Your task to perform on an android device: Open calendar and show me the fourth week of next month Image 0: 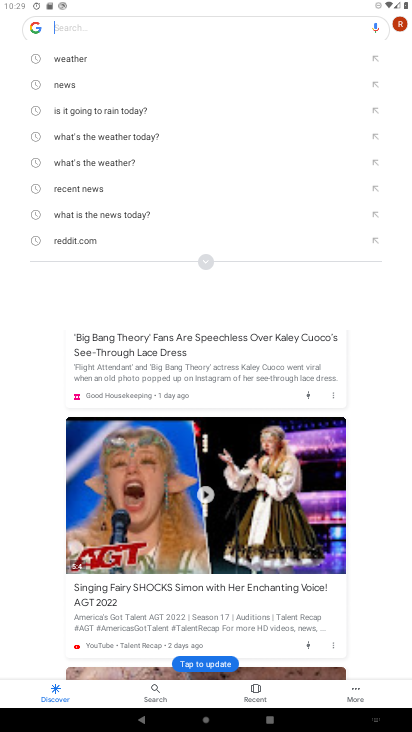
Step 0: press home button
Your task to perform on an android device: Open calendar and show me the fourth week of next month Image 1: 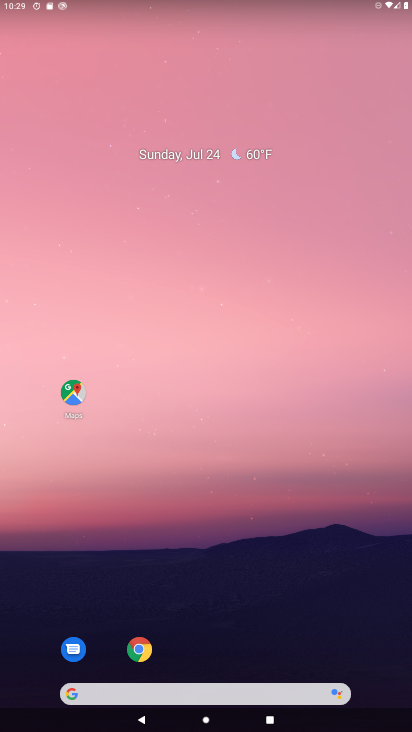
Step 1: drag from (227, 619) to (250, 67)
Your task to perform on an android device: Open calendar and show me the fourth week of next month Image 2: 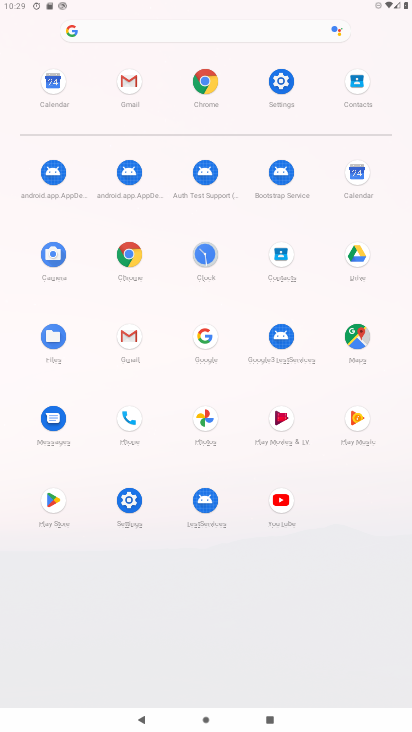
Step 2: click (363, 176)
Your task to perform on an android device: Open calendar and show me the fourth week of next month Image 3: 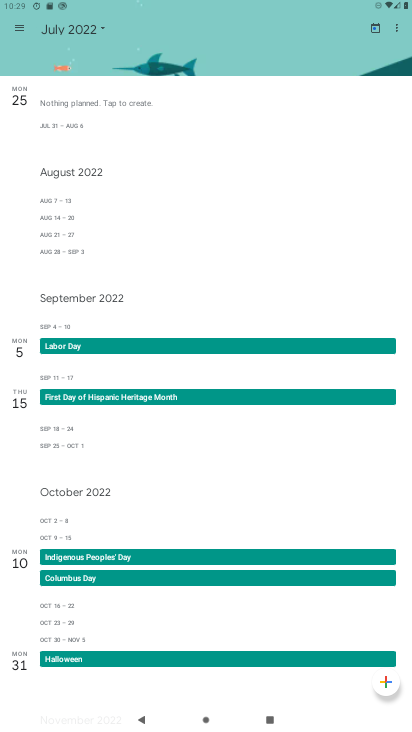
Step 3: click (88, 39)
Your task to perform on an android device: Open calendar and show me the fourth week of next month Image 4: 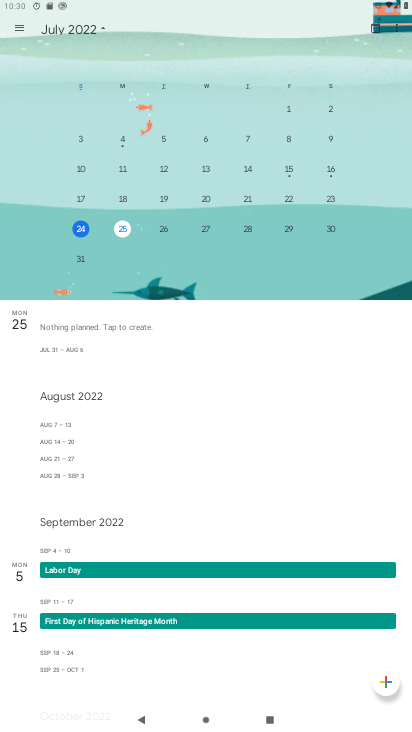
Step 4: drag from (100, 214) to (64, 215)
Your task to perform on an android device: Open calendar and show me the fourth week of next month Image 5: 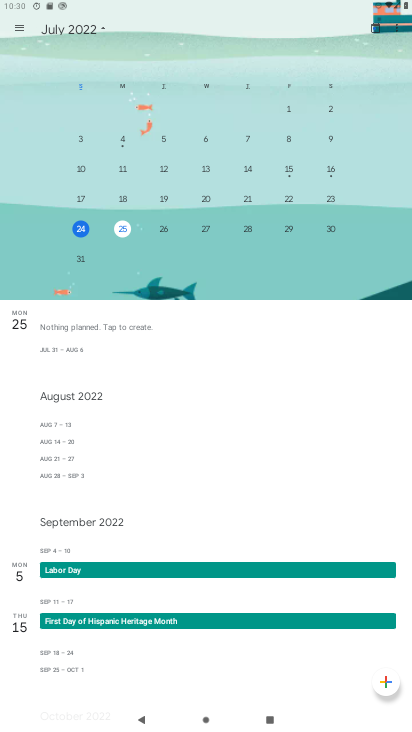
Step 5: drag from (329, 146) to (19, 164)
Your task to perform on an android device: Open calendar and show me the fourth week of next month Image 6: 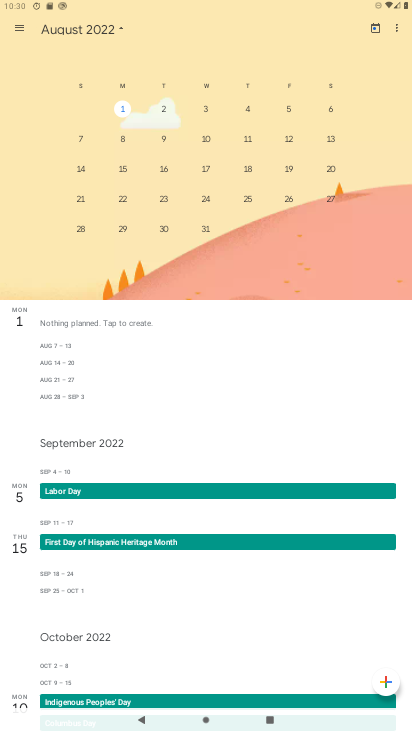
Step 6: click (213, 193)
Your task to perform on an android device: Open calendar and show me the fourth week of next month Image 7: 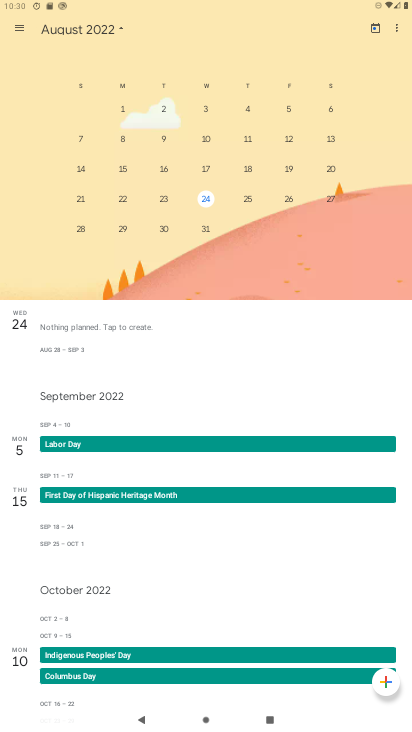
Step 7: click (23, 31)
Your task to perform on an android device: Open calendar and show me the fourth week of next month Image 8: 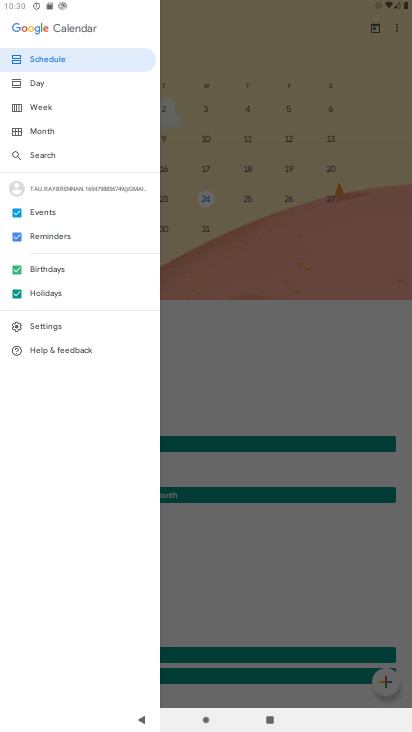
Step 8: click (50, 108)
Your task to perform on an android device: Open calendar and show me the fourth week of next month Image 9: 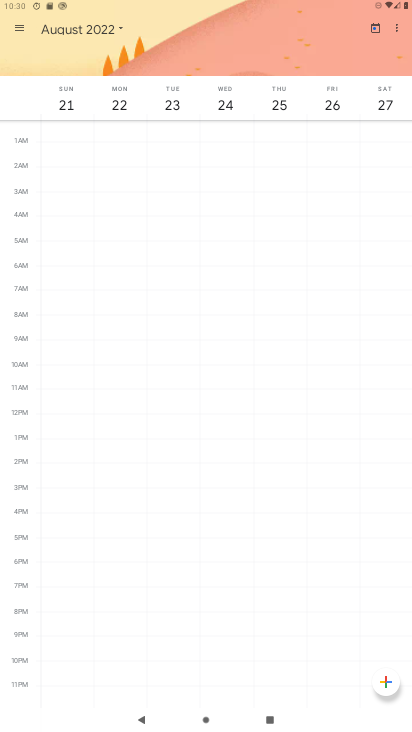
Step 9: task complete